Your task to perform on an android device: turn on priority inbox in the gmail app Image 0: 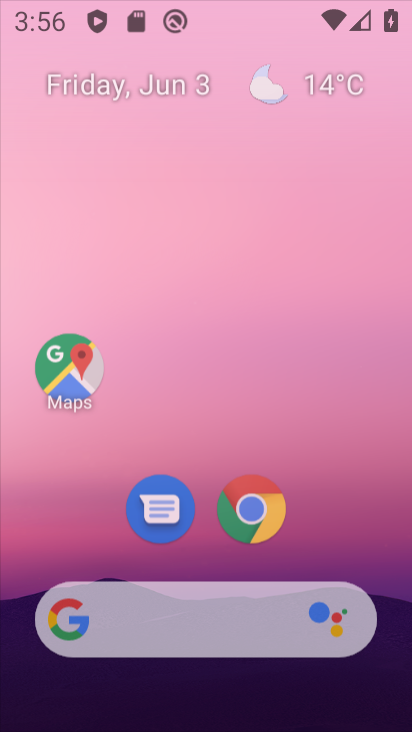
Step 0: press home button
Your task to perform on an android device: turn on priority inbox in the gmail app Image 1: 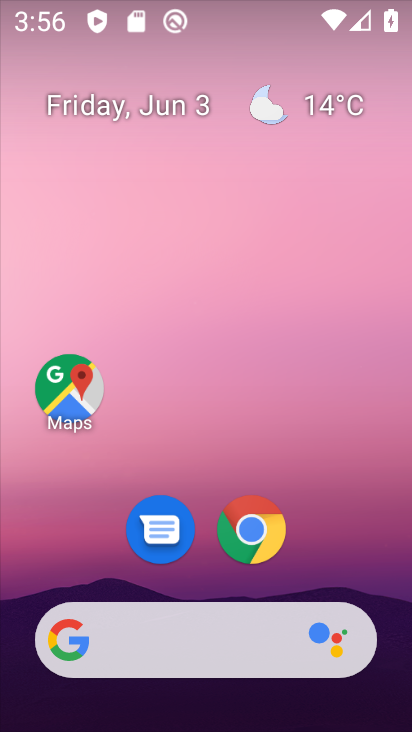
Step 1: drag from (317, 574) to (219, 28)
Your task to perform on an android device: turn on priority inbox in the gmail app Image 2: 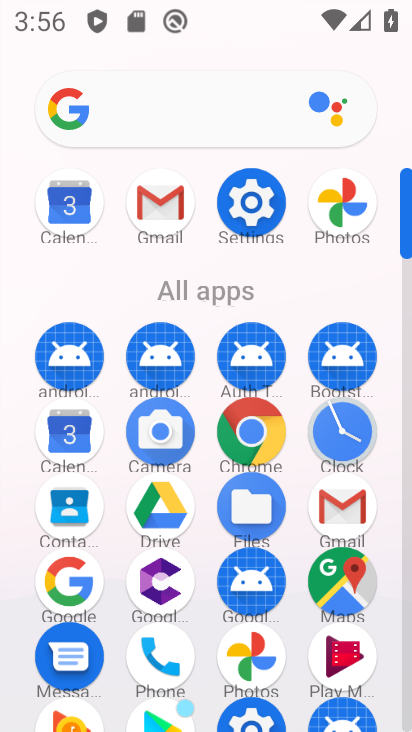
Step 2: click (160, 179)
Your task to perform on an android device: turn on priority inbox in the gmail app Image 3: 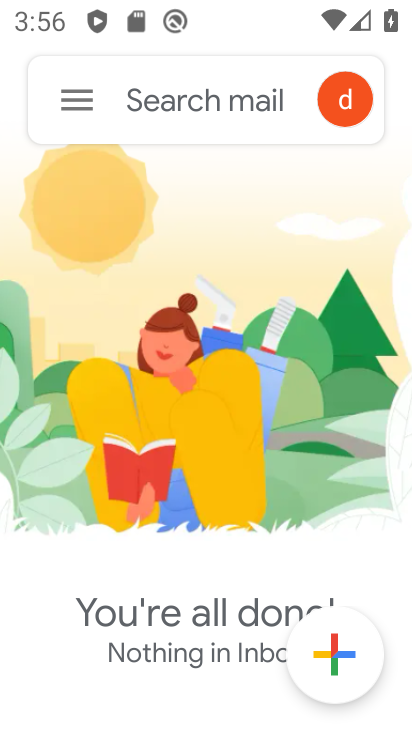
Step 3: click (79, 111)
Your task to perform on an android device: turn on priority inbox in the gmail app Image 4: 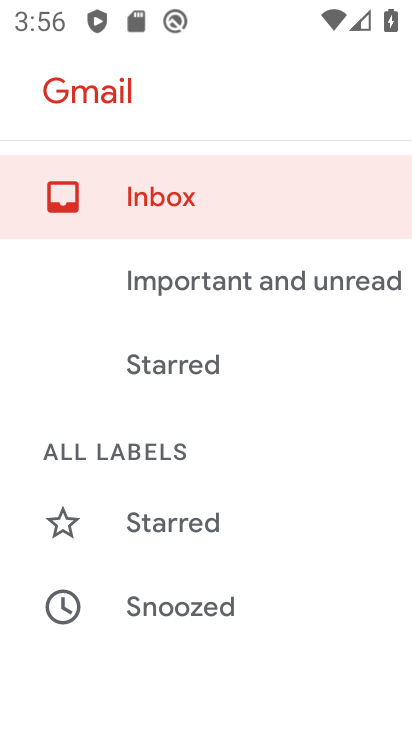
Step 4: drag from (95, 555) to (119, 138)
Your task to perform on an android device: turn on priority inbox in the gmail app Image 5: 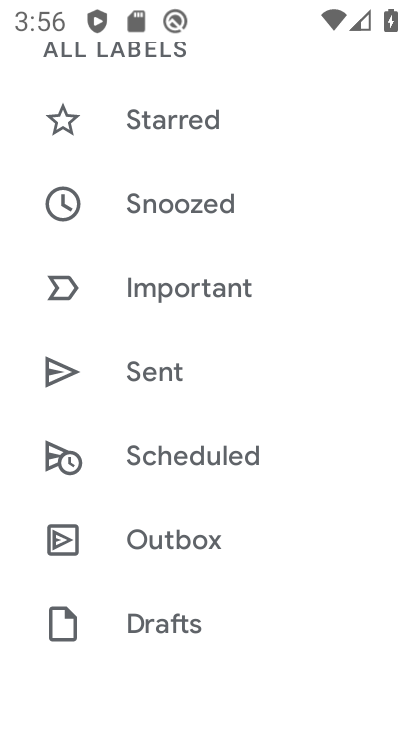
Step 5: drag from (160, 595) to (199, 213)
Your task to perform on an android device: turn on priority inbox in the gmail app Image 6: 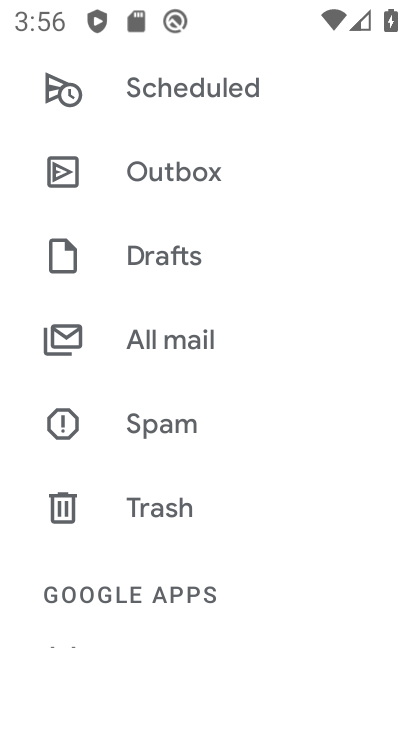
Step 6: drag from (162, 569) to (204, 144)
Your task to perform on an android device: turn on priority inbox in the gmail app Image 7: 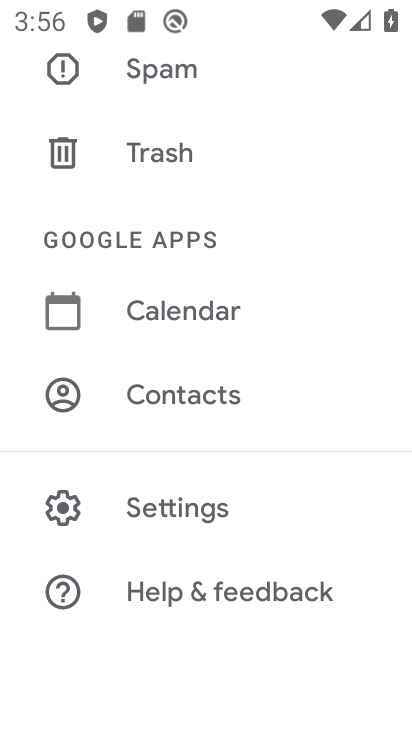
Step 7: click (174, 515)
Your task to perform on an android device: turn on priority inbox in the gmail app Image 8: 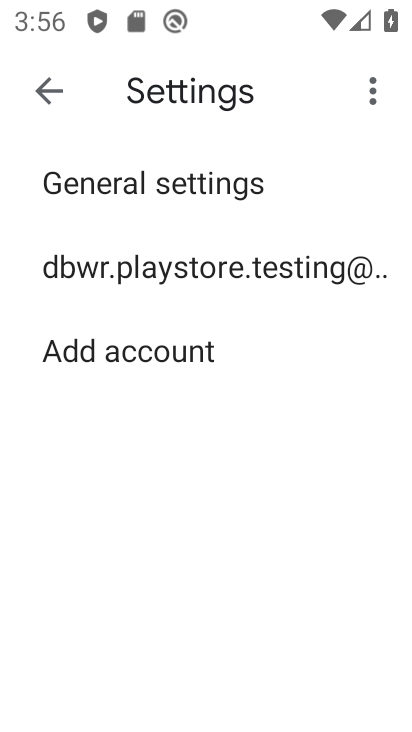
Step 8: click (203, 254)
Your task to perform on an android device: turn on priority inbox in the gmail app Image 9: 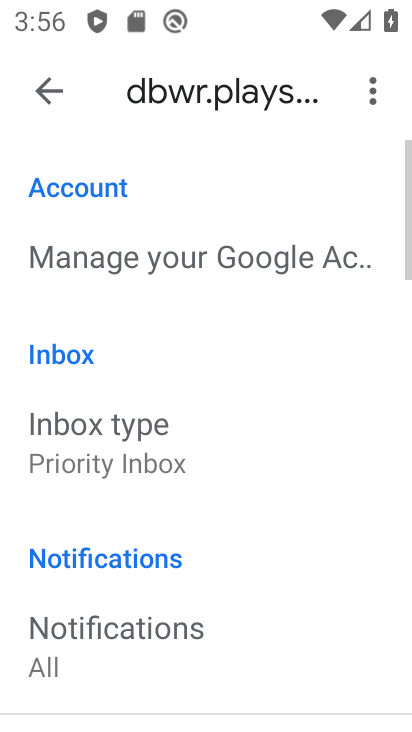
Step 9: click (112, 452)
Your task to perform on an android device: turn on priority inbox in the gmail app Image 10: 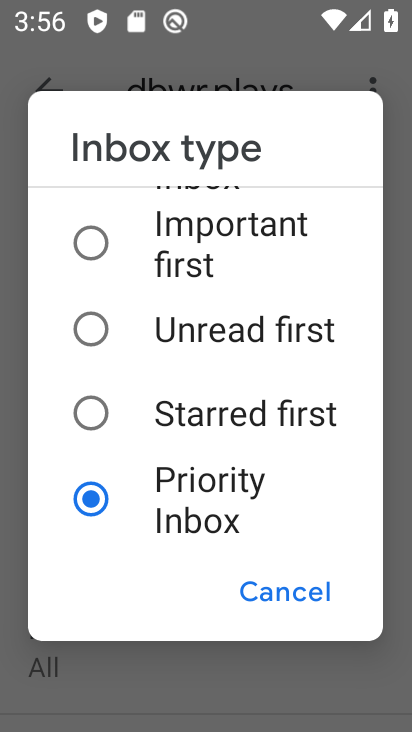
Step 10: task complete